Your task to perform on an android device: open app "HBO Max: Stream TV & Movies" Image 0: 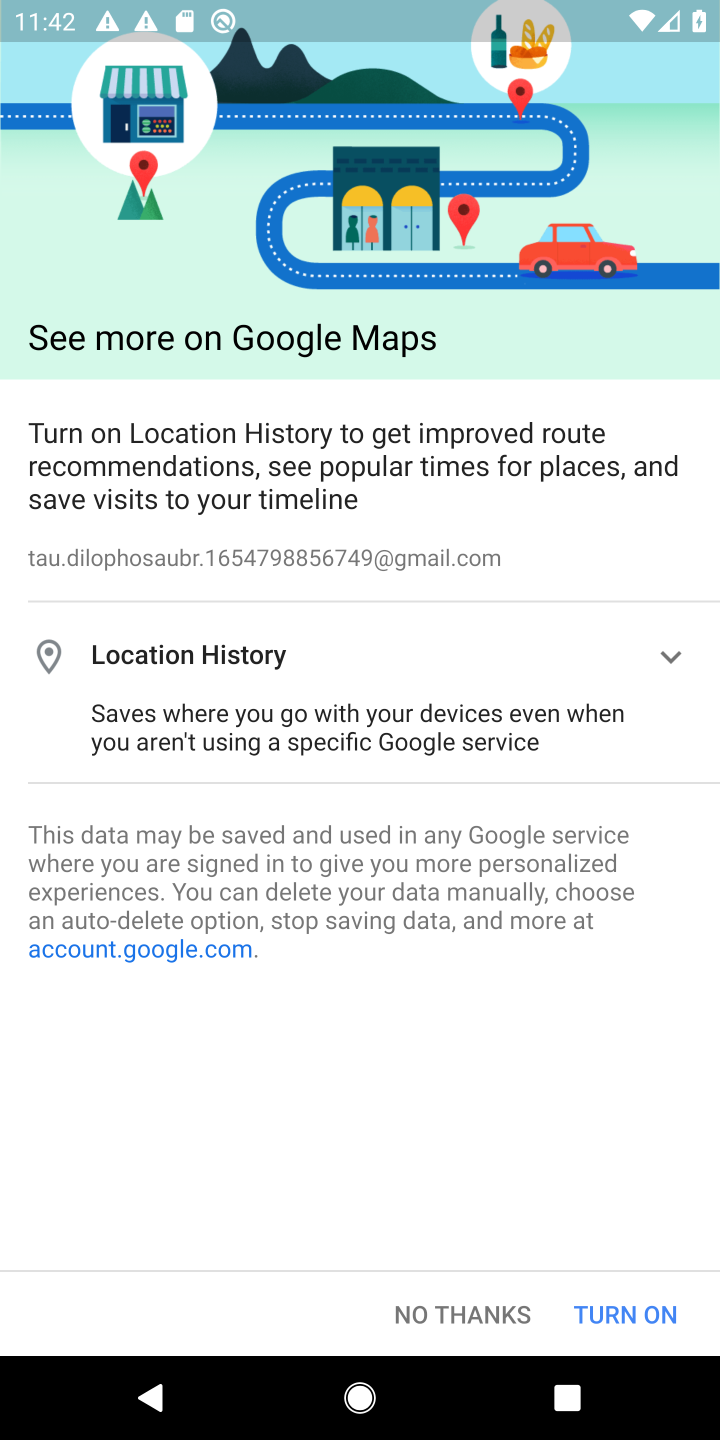
Step 0: press home button
Your task to perform on an android device: open app "HBO Max: Stream TV & Movies" Image 1: 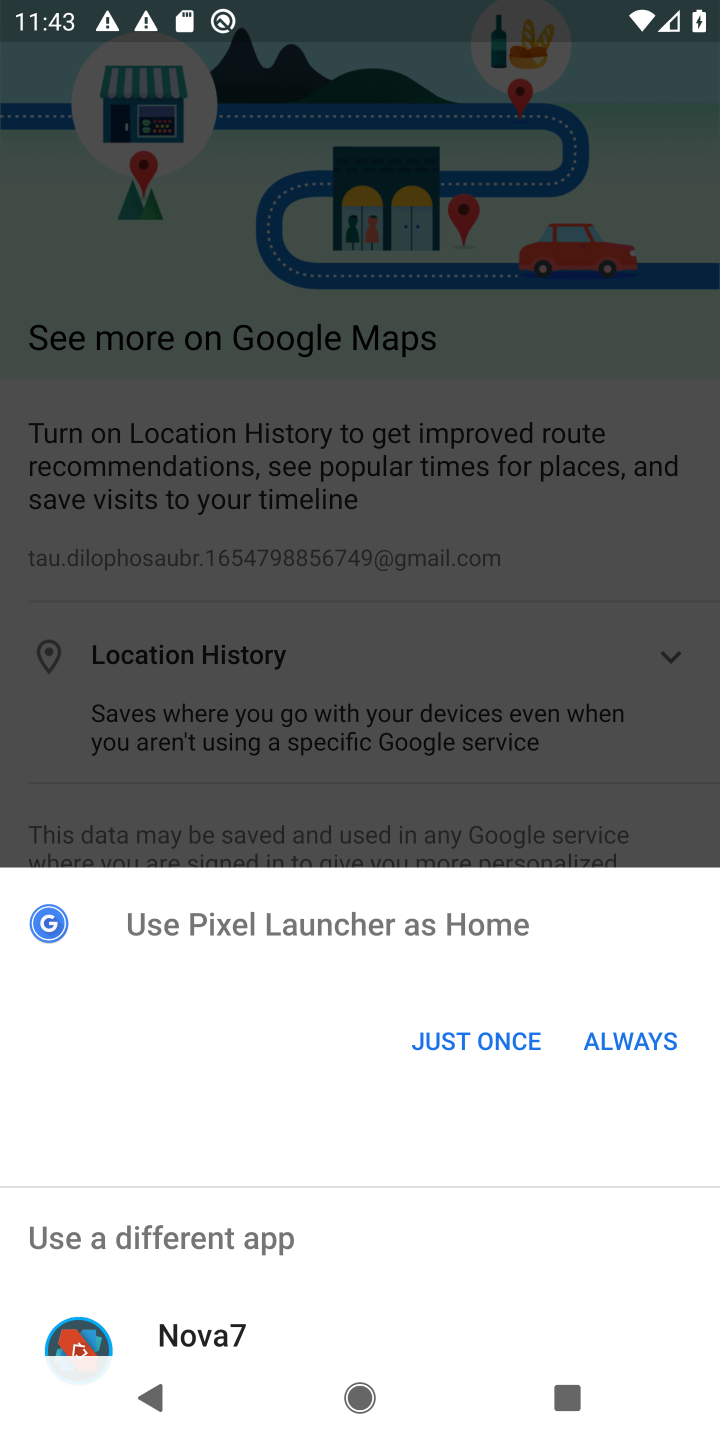
Step 1: click (457, 1044)
Your task to perform on an android device: open app "HBO Max: Stream TV & Movies" Image 2: 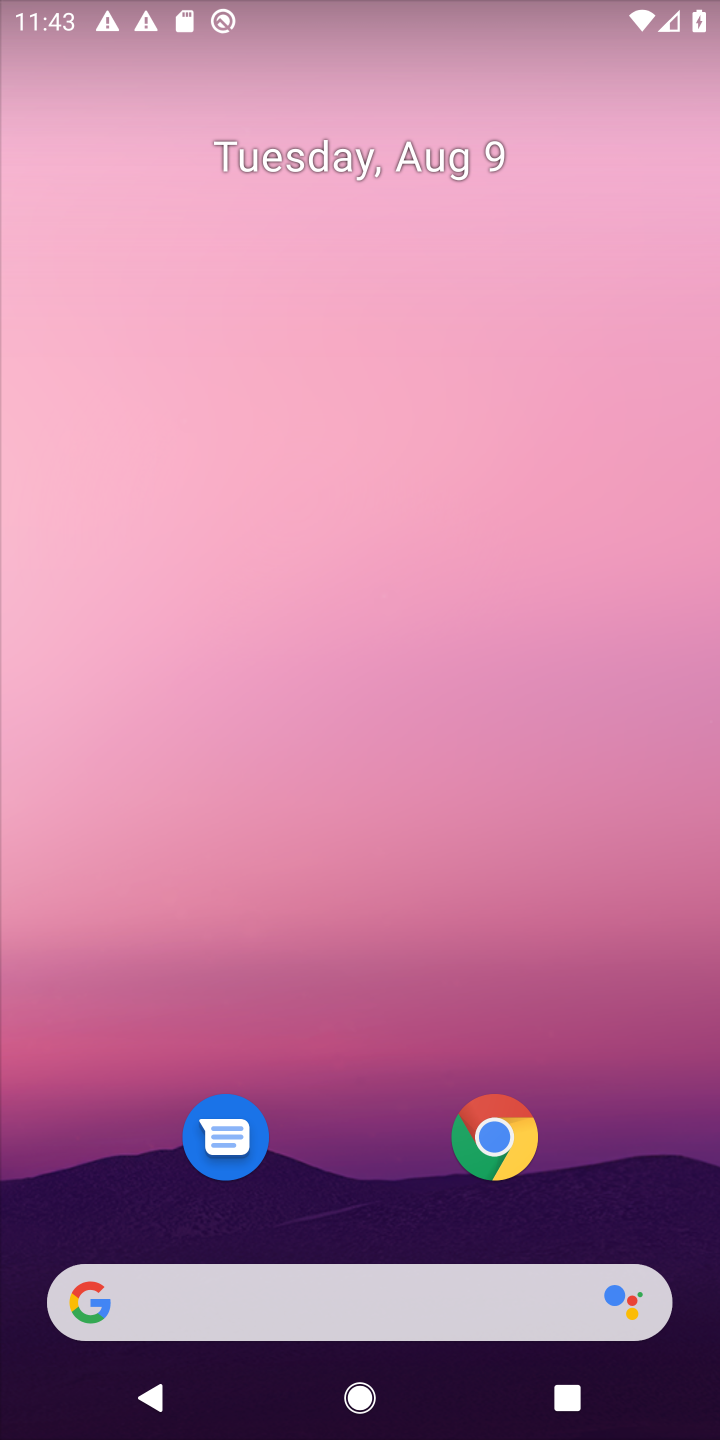
Step 2: drag from (363, 1165) to (475, 141)
Your task to perform on an android device: open app "HBO Max: Stream TV & Movies" Image 3: 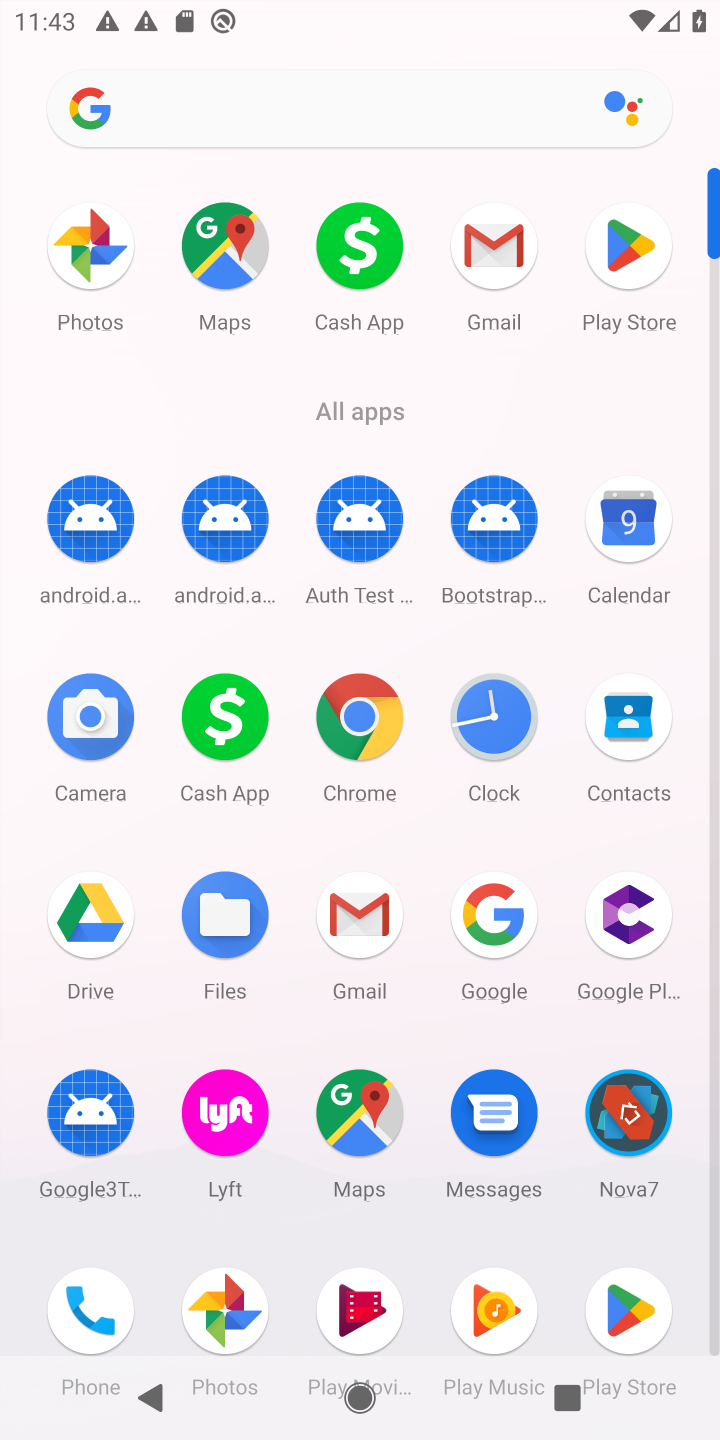
Step 3: click (622, 235)
Your task to perform on an android device: open app "HBO Max: Stream TV & Movies" Image 4: 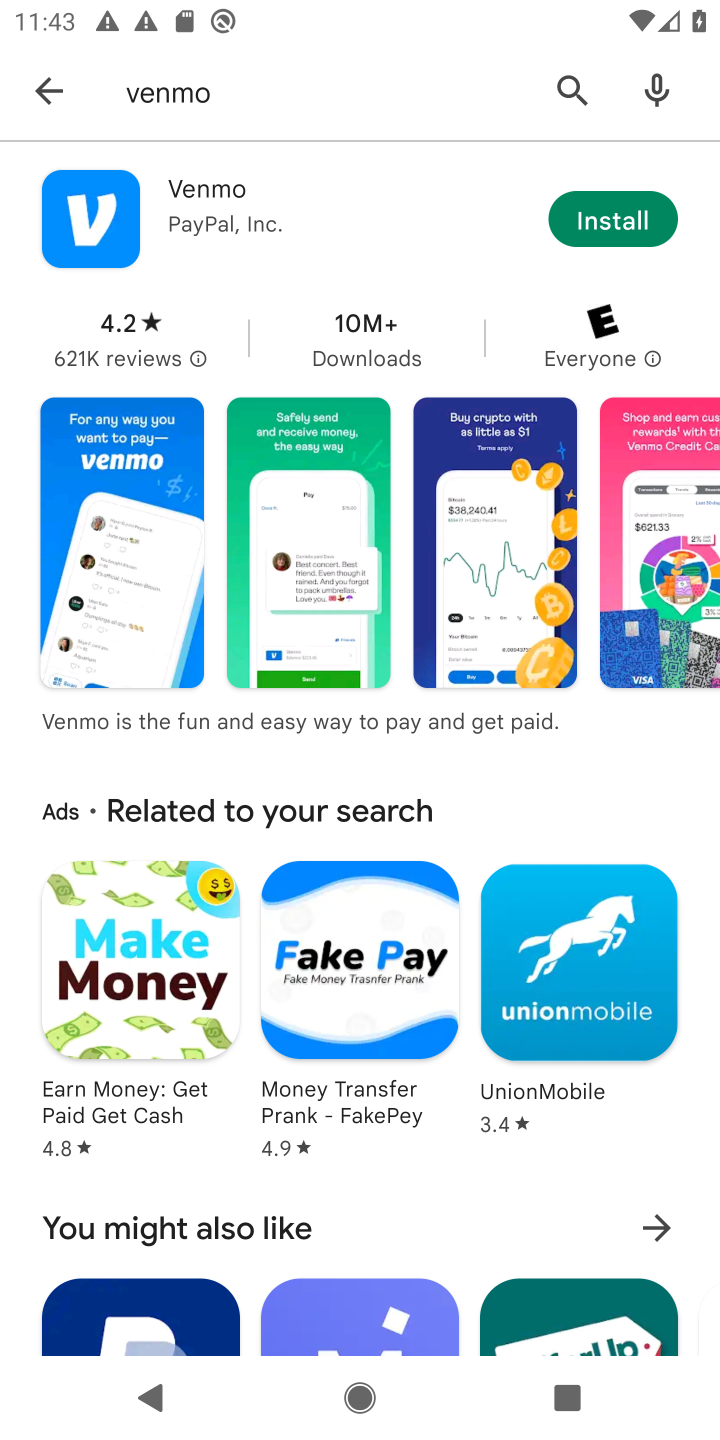
Step 4: click (559, 80)
Your task to perform on an android device: open app "HBO Max: Stream TV & Movies" Image 5: 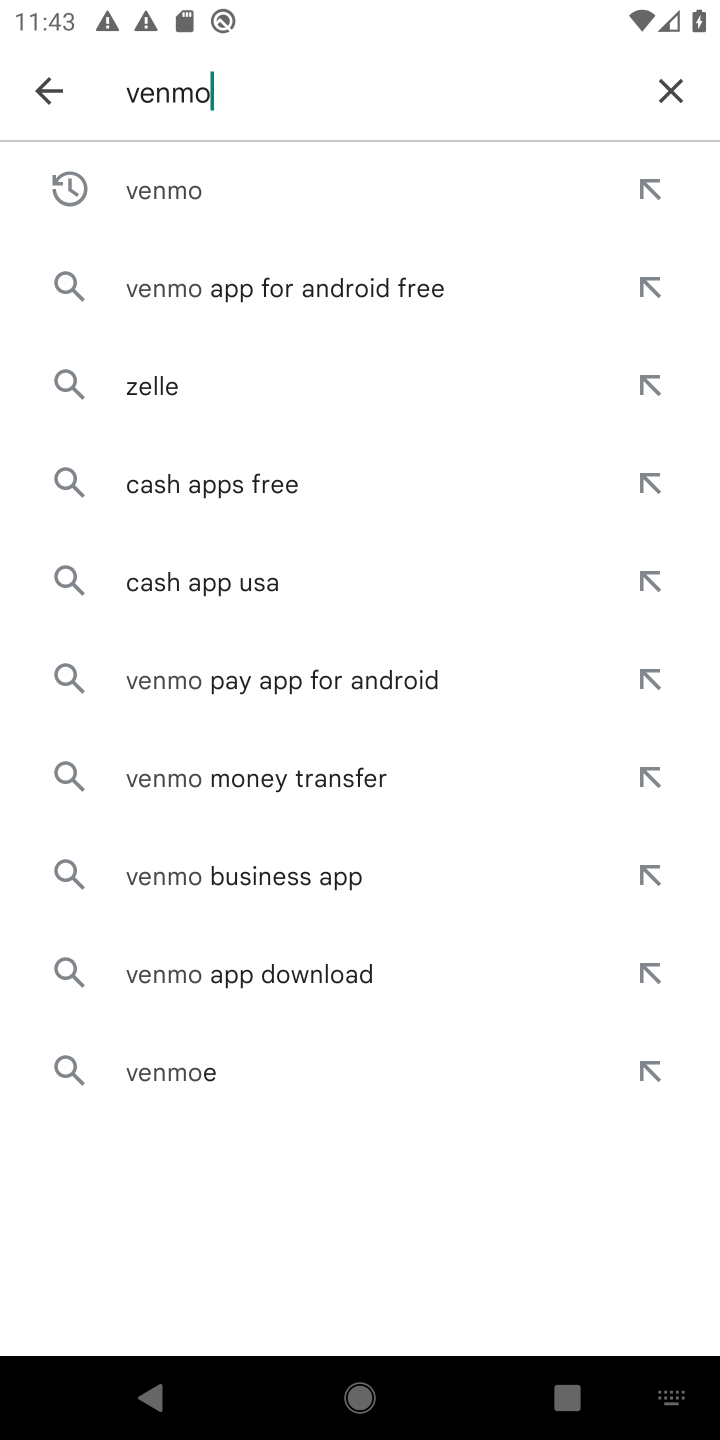
Step 5: click (669, 99)
Your task to perform on an android device: open app "HBO Max: Stream TV & Movies" Image 6: 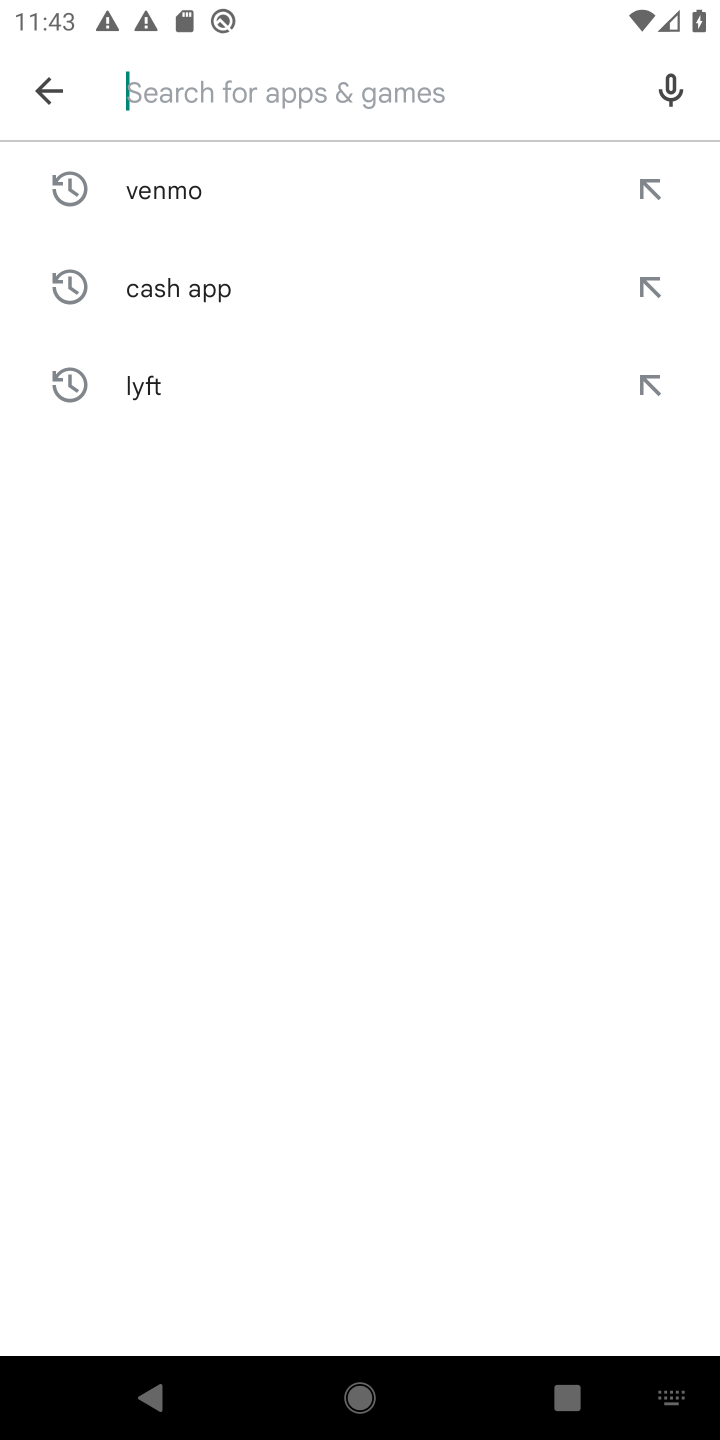
Step 6: type "HBO Max: Stream TV & Movies"
Your task to perform on an android device: open app "HBO Max: Stream TV & Movies" Image 7: 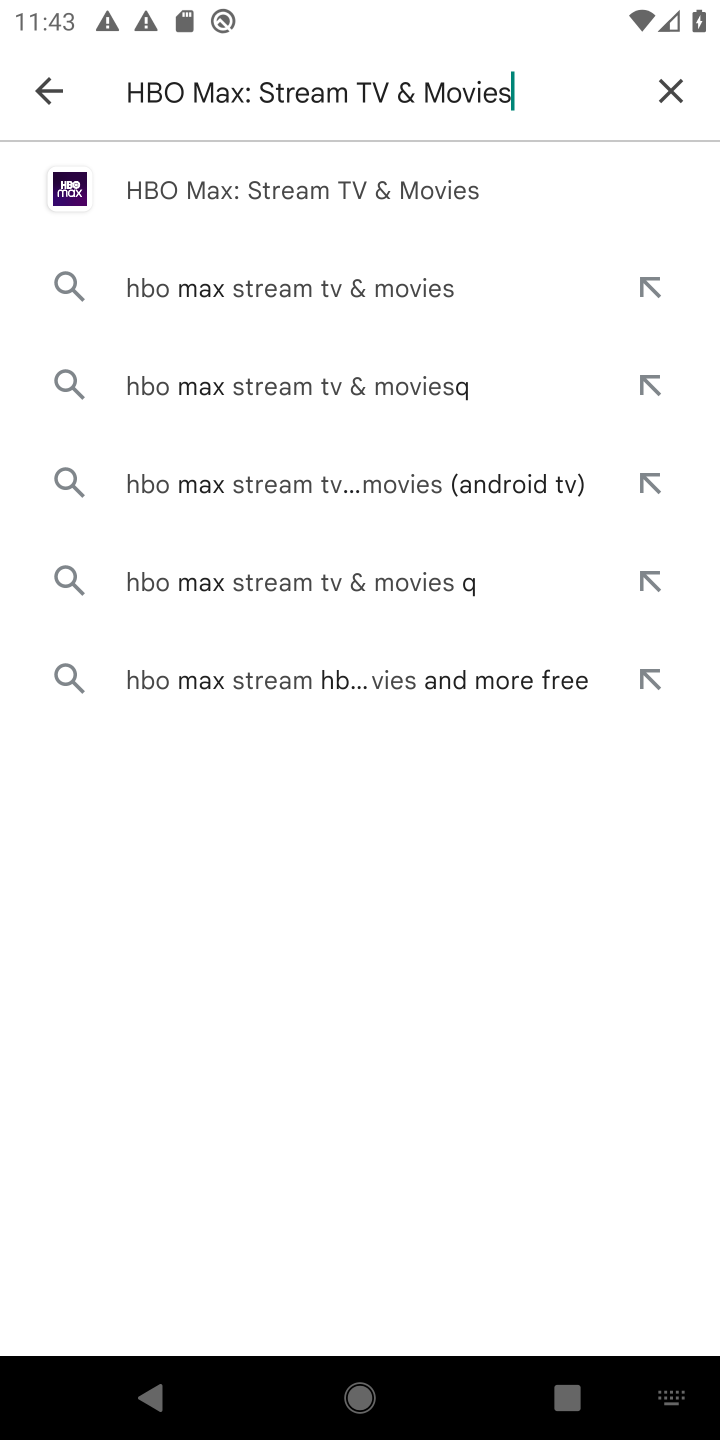
Step 7: click (291, 184)
Your task to perform on an android device: open app "HBO Max: Stream TV & Movies" Image 8: 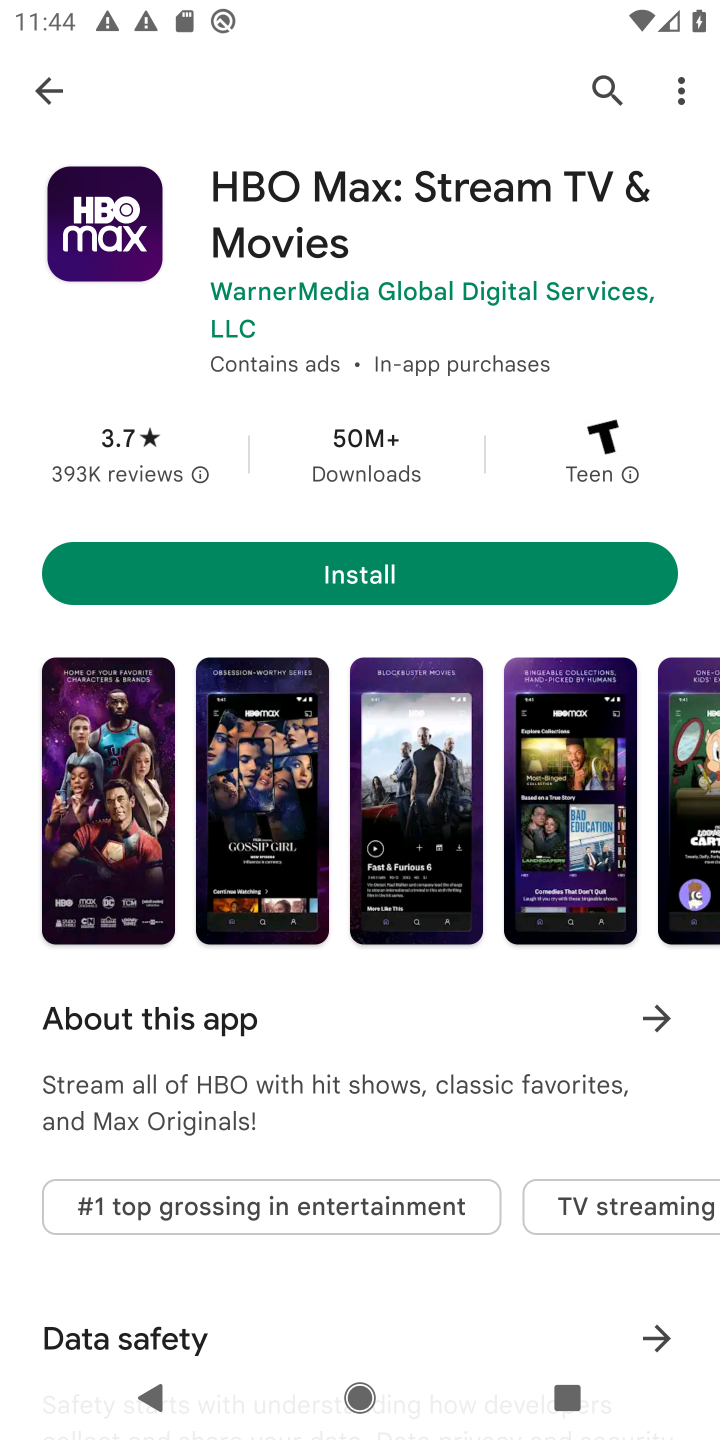
Step 8: task complete